Your task to perform on an android device: uninstall "Google Calendar" Image 0: 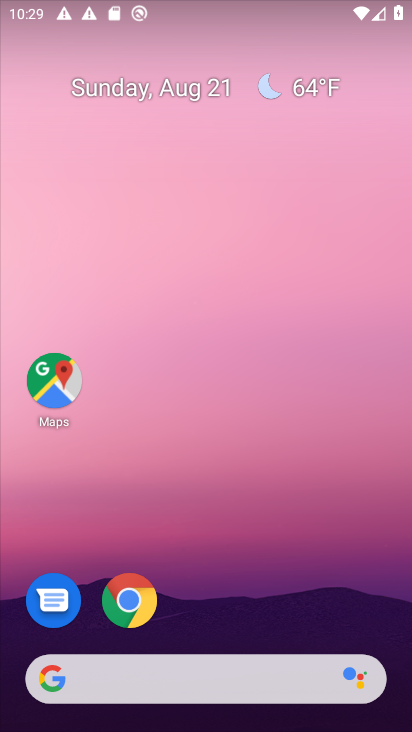
Step 0: drag from (205, 560) to (217, 168)
Your task to perform on an android device: uninstall "Google Calendar" Image 1: 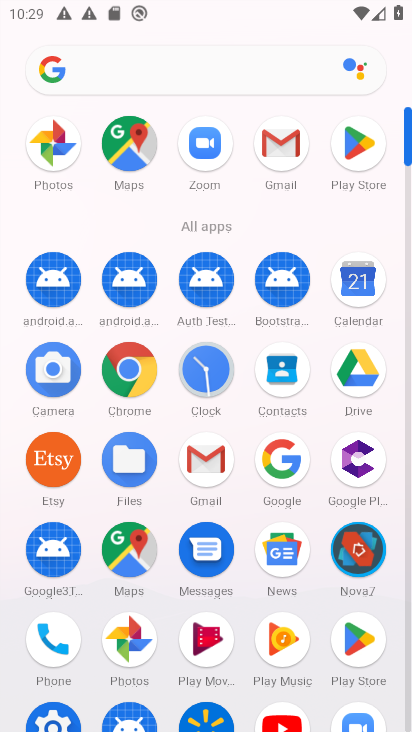
Step 1: click (365, 164)
Your task to perform on an android device: uninstall "Google Calendar" Image 2: 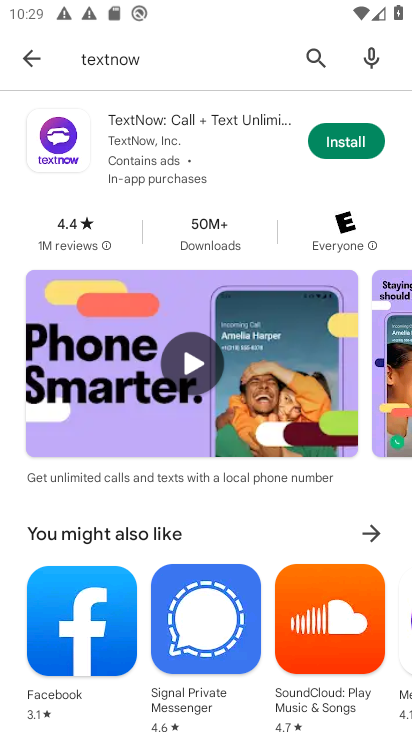
Step 2: click (155, 58)
Your task to perform on an android device: uninstall "Google Calendar" Image 3: 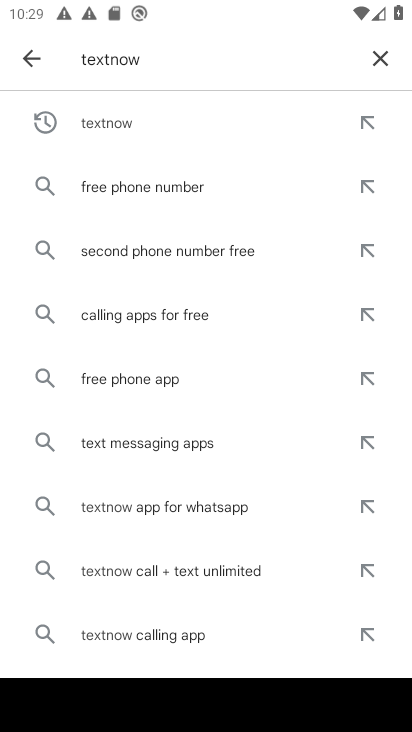
Step 3: click (382, 56)
Your task to perform on an android device: uninstall "Google Calendar" Image 4: 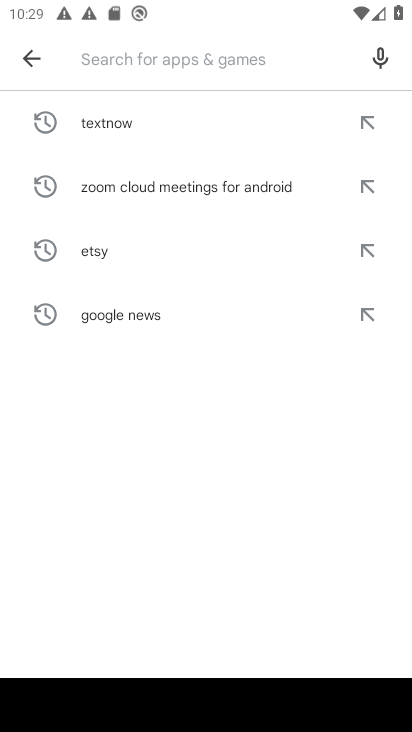
Step 4: type "google calender"
Your task to perform on an android device: uninstall "Google Calendar" Image 5: 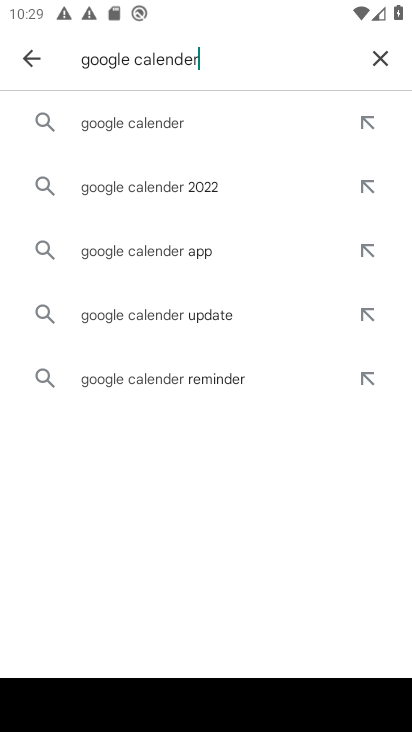
Step 5: click (125, 119)
Your task to perform on an android device: uninstall "Google Calendar" Image 6: 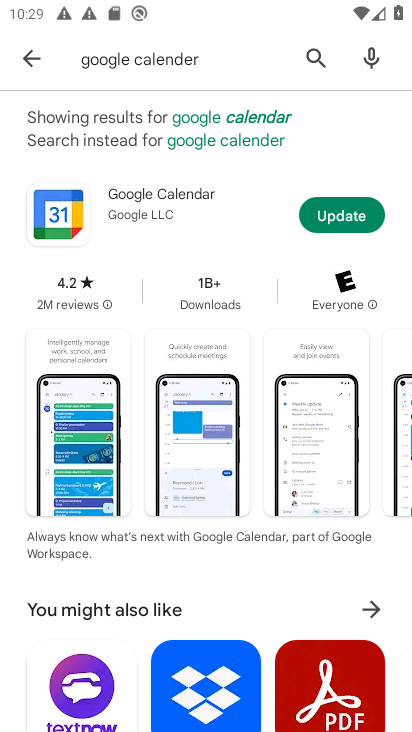
Step 6: click (66, 217)
Your task to perform on an android device: uninstall "Google Calendar" Image 7: 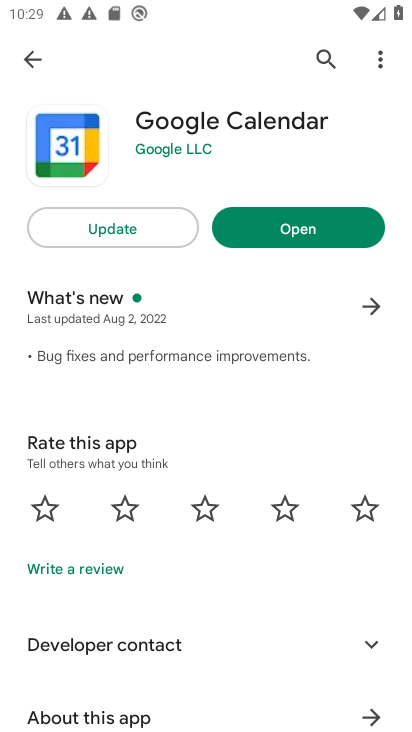
Step 7: task complete